Your task to perform on an android device: Open Yahoo.com Image 0: 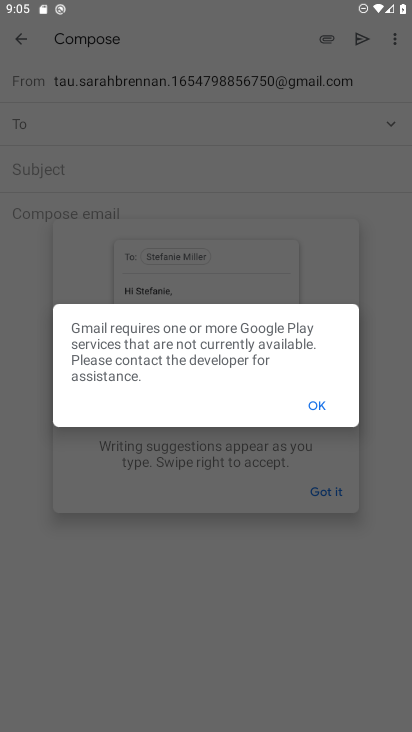
Step 0: press home button
Your task to perform on an android device: Open Yahoo.com Image 1: 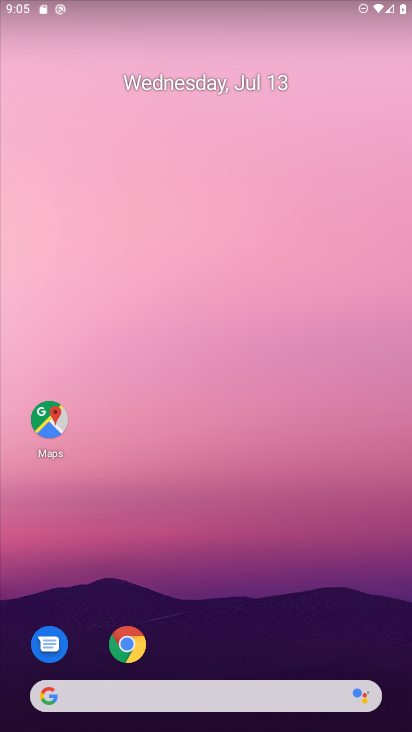
Step 1: click (237, 685)
Your task to perform on an android device: Open Yahoo.com Image 2: 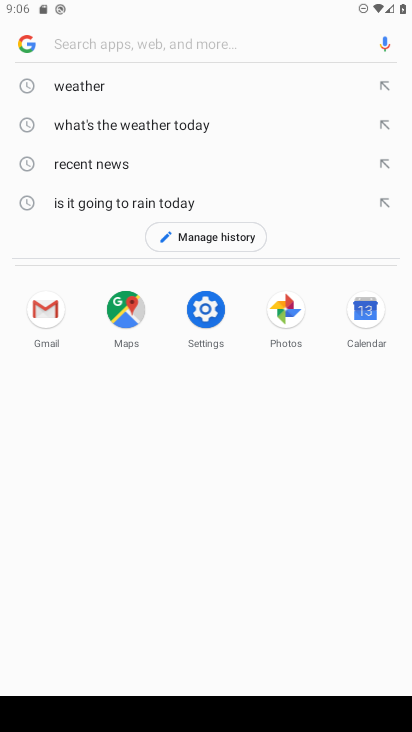
Step 2: type "Yahoo.com"
Your task to perform on an android device: Open Yahoo.com Image 3: 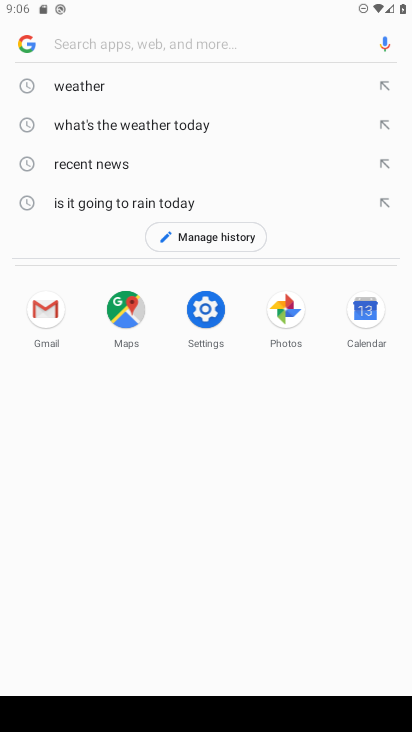
Step 3: click (123, 50)
Your task to perform on an android device: Open Yahoo.com Image 4: 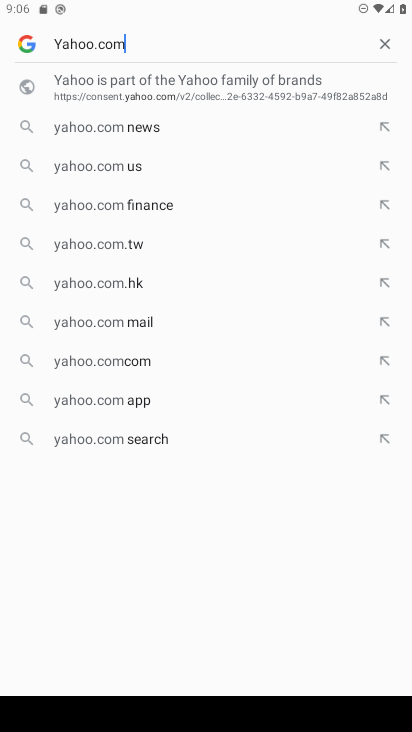
Step 4: press enter
Your task to perform on an android device: Open Yahoo.com Image 5: 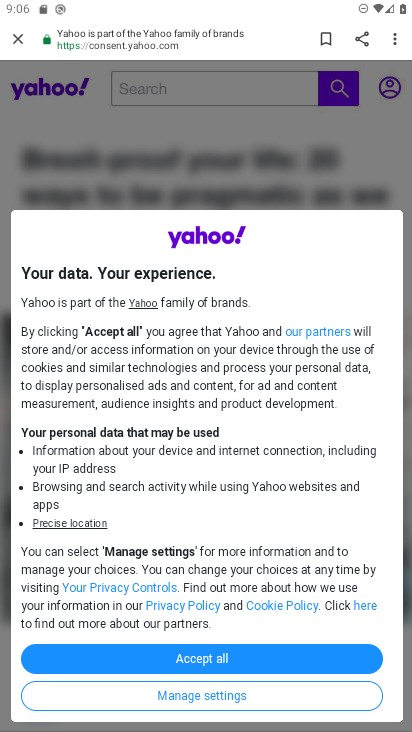
Step 5: click (203, 650)
Your task to perform on an android device: Open Yahoo.com Image 6: 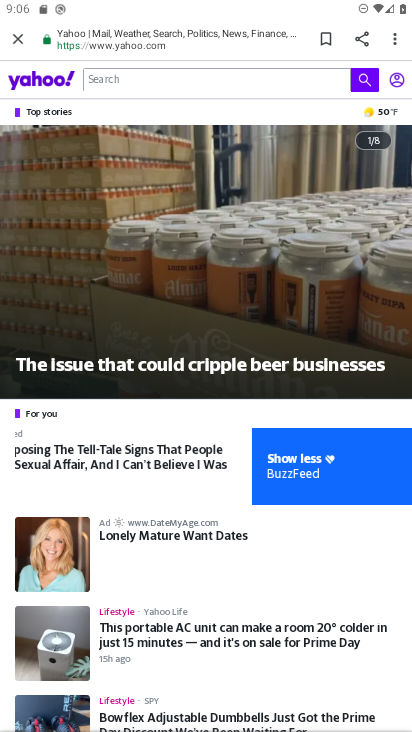
Step 6: task complete